Your task to perform on an android device: turn notification dots off Image 0: 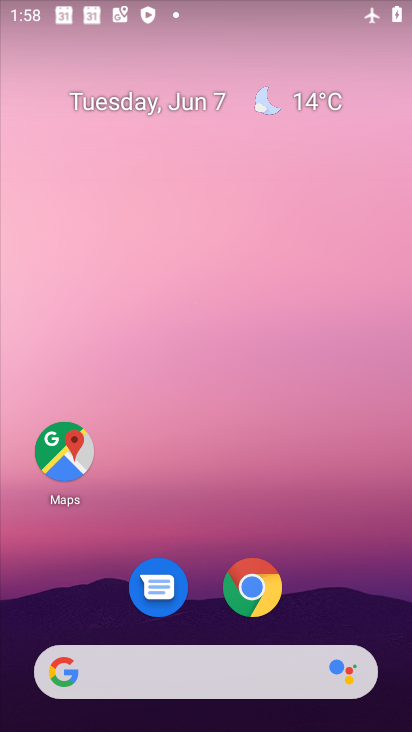
Step 0: drag from (187, 656) to (222, 153)
Your task to perform on an android device: turn notification dots off Image 1: 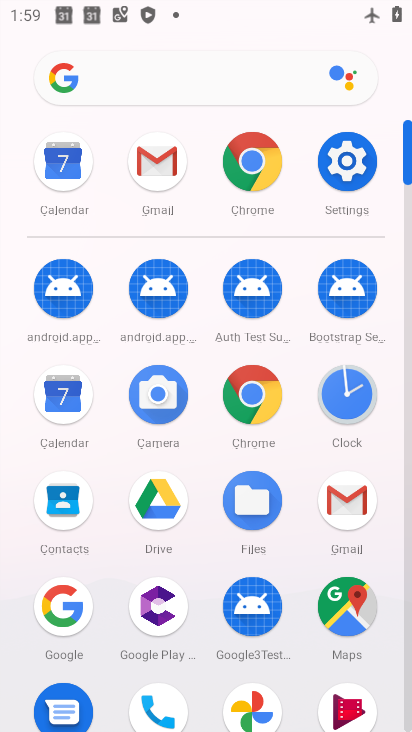
Step 1: click (347, 185)
Your task to perform on an android device: turn notification dots off Image 2: 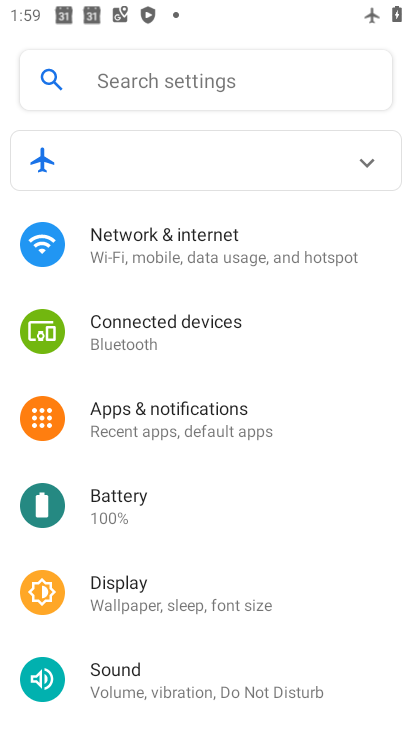
Step 2: drag from (155, 627) to (227, 307)
Your task to perform on an android device: turn notification dots off Image 3: 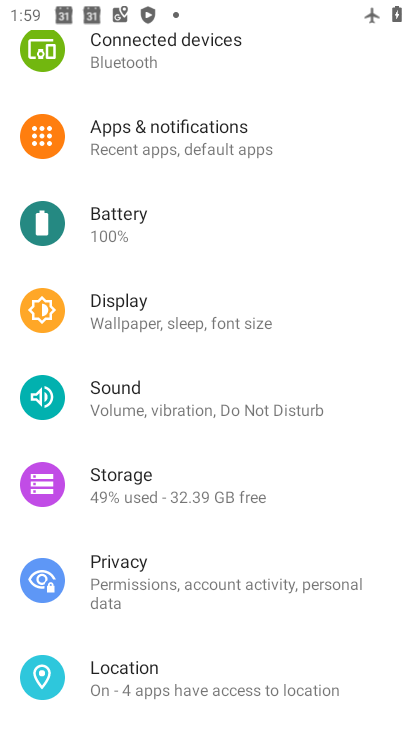
Step 3: click (265, 140)
Your task to perform on an android device: turn notification dots off Image 4: 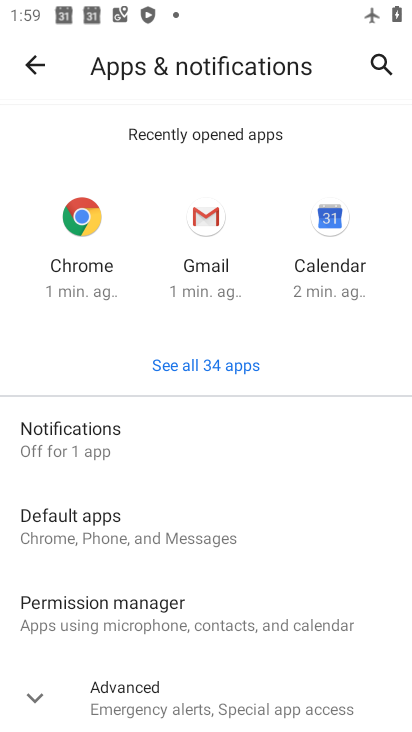
Step 4: drag from (161, 643) to (241, 231)
Your task to perform on an android device: turn notification dots off Image 5: 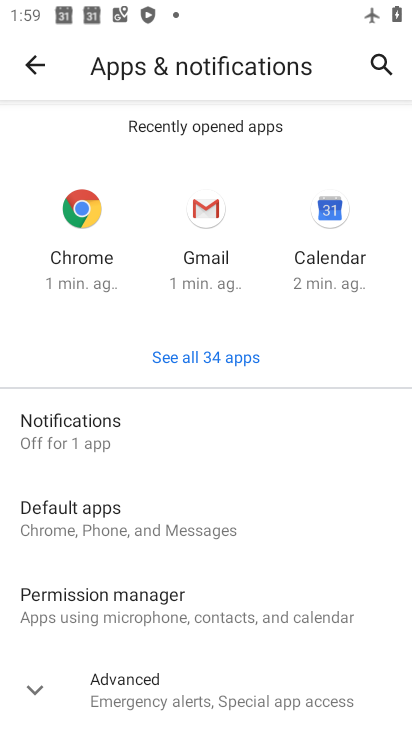
Step 5: click (158, 436)
Your task to perform on an android device: turn notification dots off Image 6: 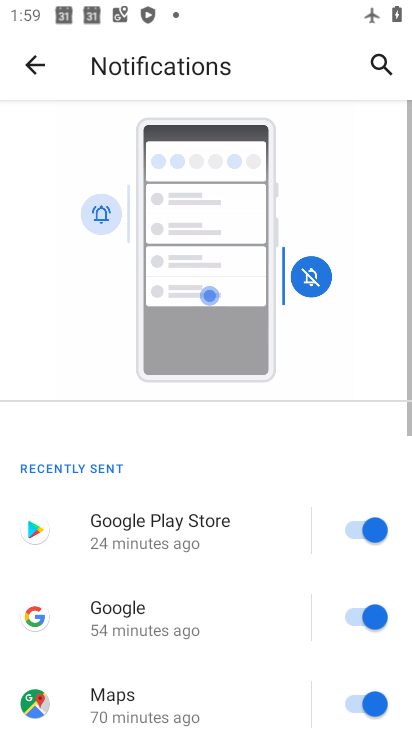
Step 6: drag from (178, 606) to (247, 180)
Your task to perform on an android device: turn notification dots off Image 7: 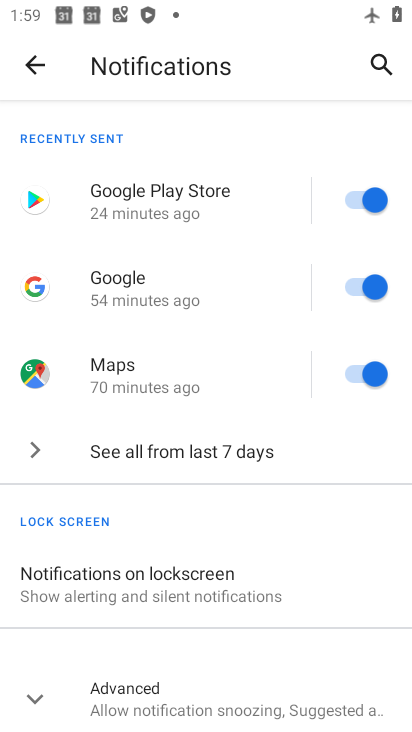
Step 7: drag from (160, 522) to (194, 217)
Your task to perform on an android device: turn notification dots off Image 8: 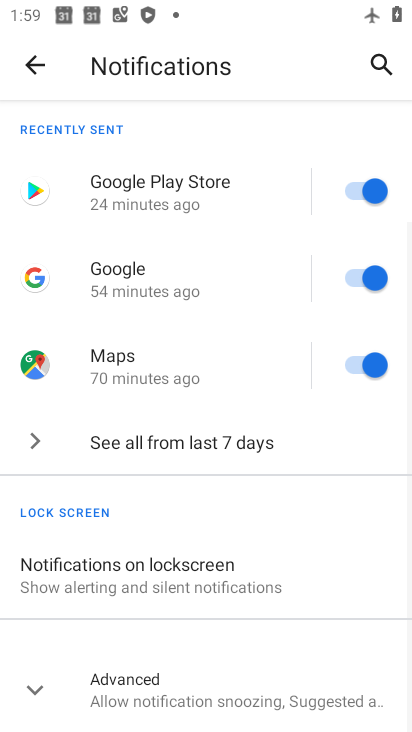
Step 8: click (125, 681)
Your task to perform on an android device: turn notification dots off Image 9: 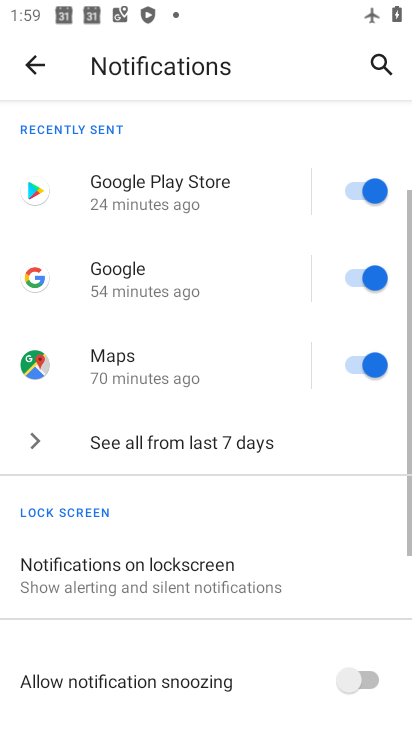
Step 9: task complete